Your task to perform on an android device: Is it going to rain this weekend? Image 0: 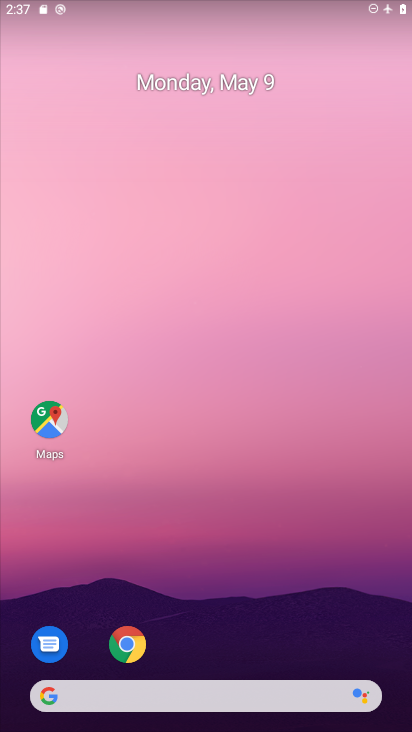
Step 0: drag from (218, 638) to (164, 166)
Your task to perform on an android device: Is it going to rain this weekend? Image 1: 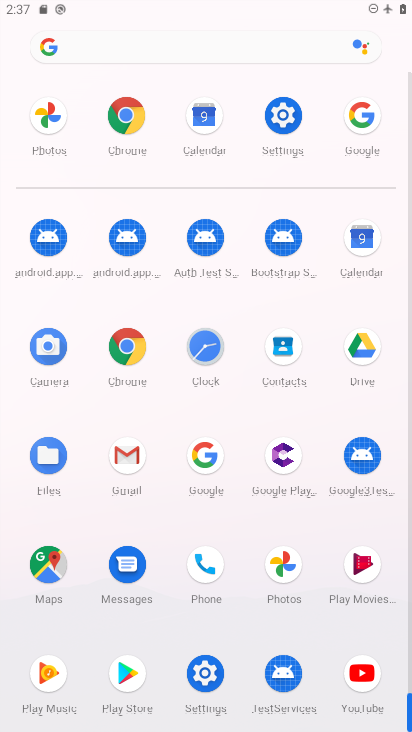
Step 1: click (351, 139)
Your task to perform on an android device: Is it going to rain this weekend? Image 2: 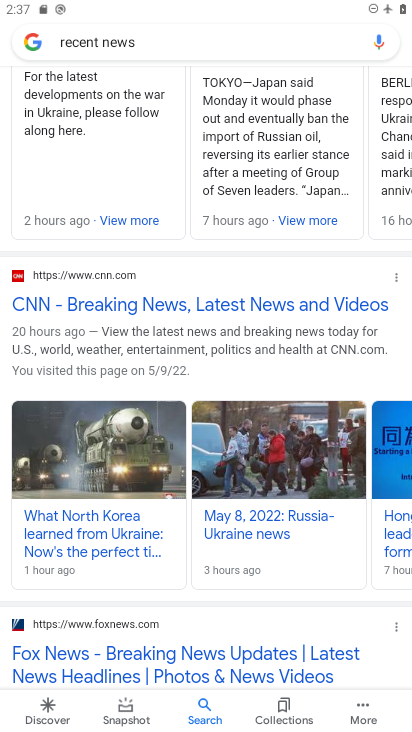
Step 2: drag from (264, 182) to (165, 730)
Your task to perform on an android device: Is it going to rain this weekend? Image 3: 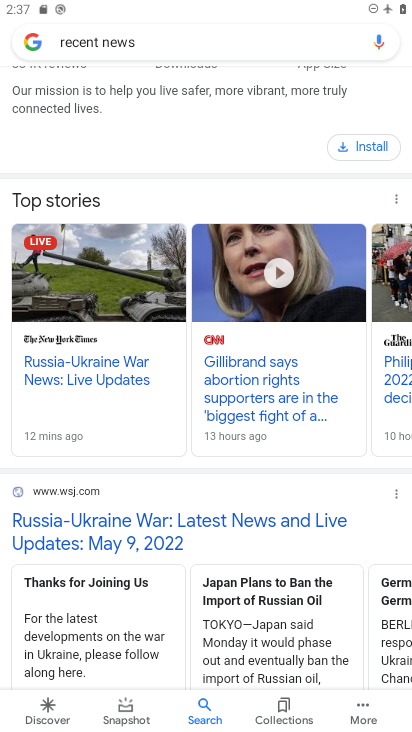
Step 3: drag from (132, 247) to (130, 729)
Your task to perform on an android device: Is it going to rain this weekend? Image 4: 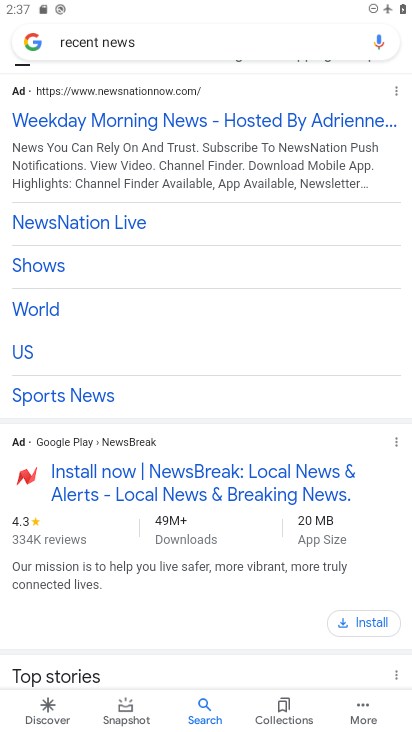
Step 4: drag from (156, 420) to (113, 731)
Your task to perform on an android device: Is it going to rain this weekend? Image 5: 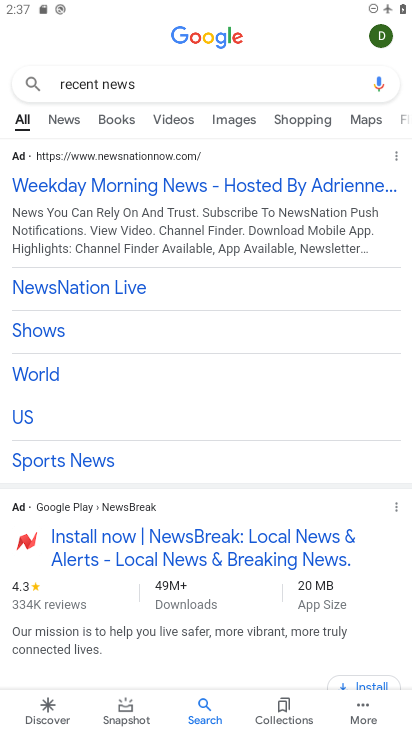
Step 5: drag from (192, 284) to (195, 680)
Your task to perform on an android device: Is it going to rain this weekend? Image 6: 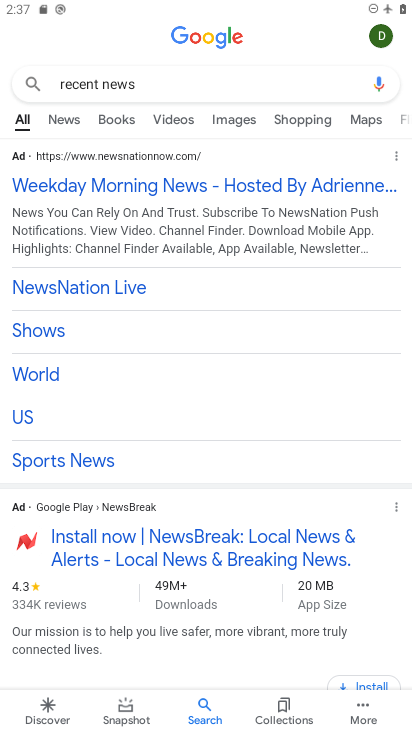
Step 6: drag from (189, 242) to (181, 644)
Your task to perform on an android device: Is it going to rain this weekend? Image 7: 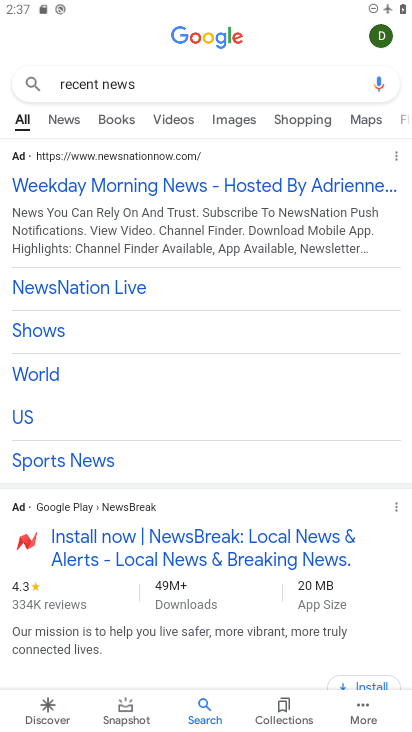
Step 7: drag from (186, 173) to (187, 642)
Your task to perform on an android device: Is it going to rain this weekend? Image 8: 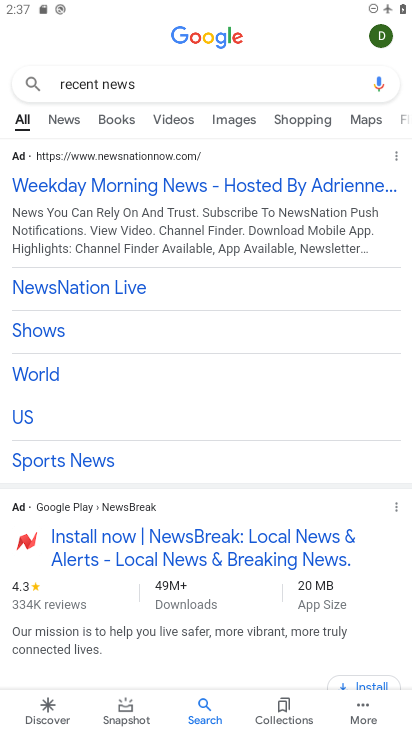
Step 8: press back button
Your task to perform on an android device: Is it going to rain this weekend? Image 9: 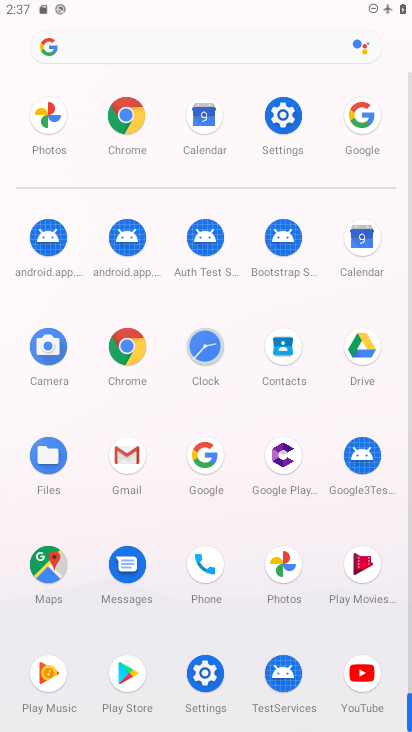
Step 9: click (211, 486)
Your task to perform on an android device: Is it going to rain this weekend? Image 10: 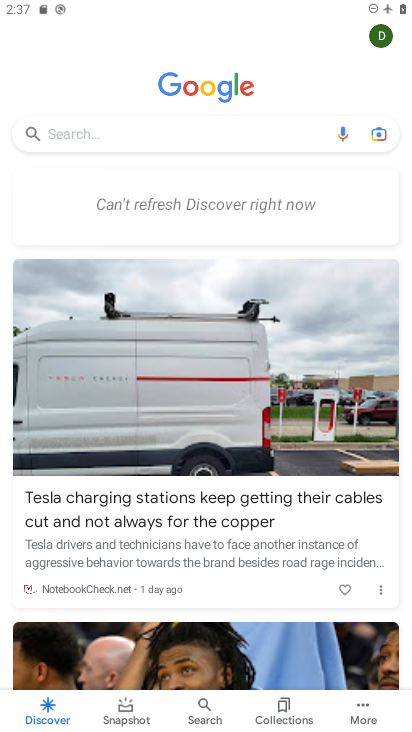
Step 10: click (192, 144)
Your task to perform on an android device: Is it going to rain this weekend? Image 11: 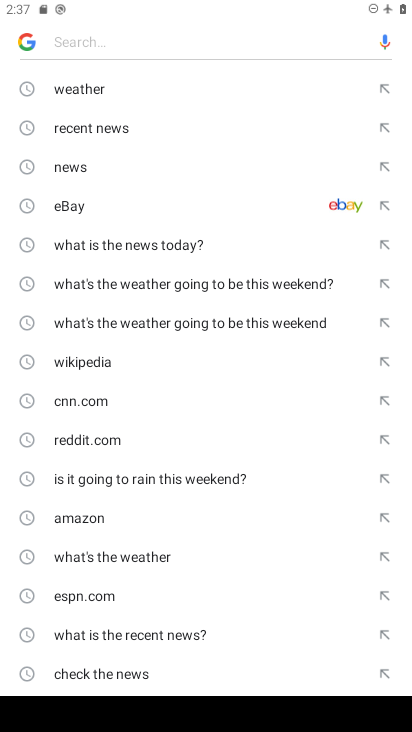
Step 11: click (84, 94)
Your task to perform on an android device: Is it going to rain this weekend? Image 12: 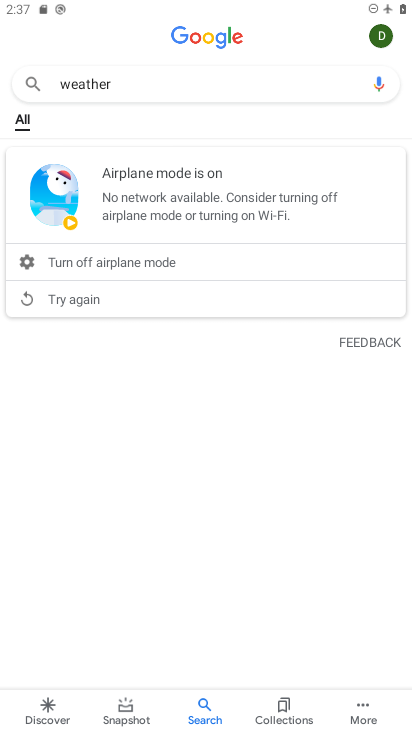
Step 12: press back button
Your task to perform on an android device: Is it going to rain this weekend? Image 13: 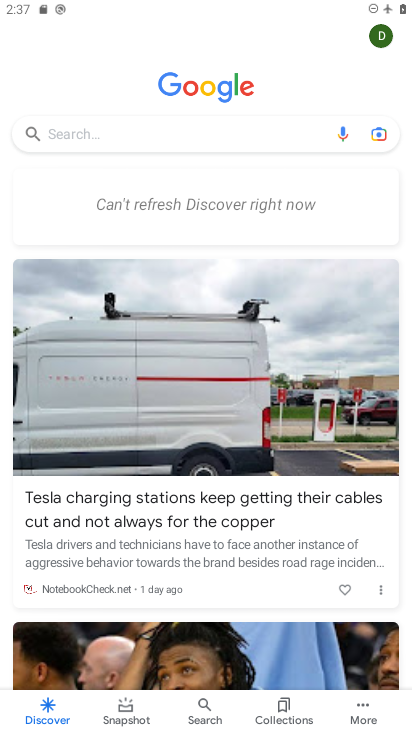
Step 13: press back button
Your task to perform on an android device: Is it going to rain this weekend? Image 14: 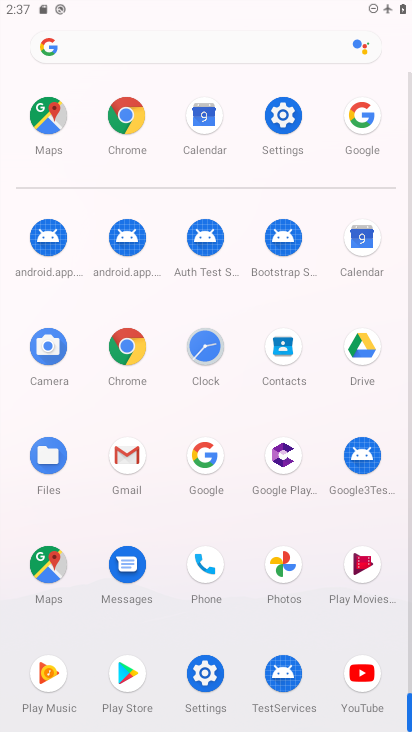
Step 14: click (268, 141)
Your task to perform on an android device: Is it going to rain this weekend? Image 15: 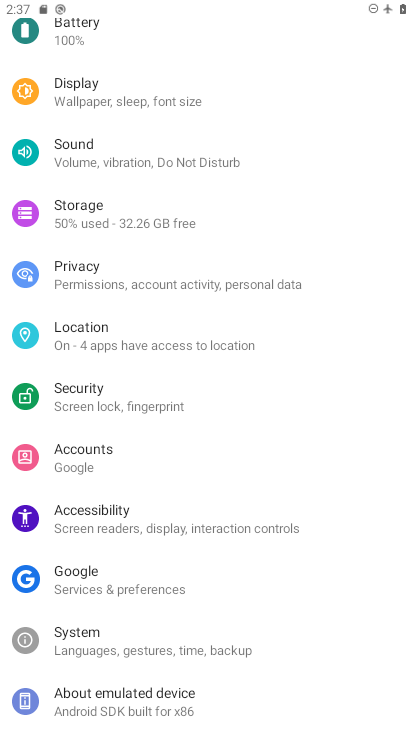
Step 15: drag from (278, 133) to (290, 441)
Your task to perform on an android device: Is it going to rain this weekend? Image 16: 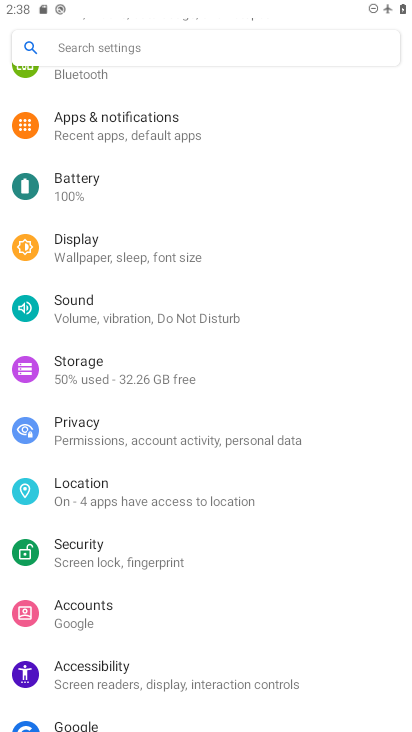
Step 16: drag from (259, 166) to (236, 675)
Your task to perform on an android device: Is it going to rain this weekend? Image 17: 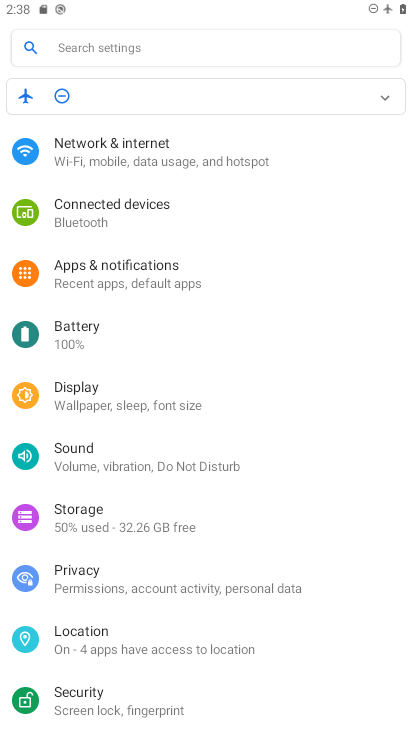
Step 17: click (385, 97)
Your task to perform on an android device: Is it going to rain this weekend? Image 18: 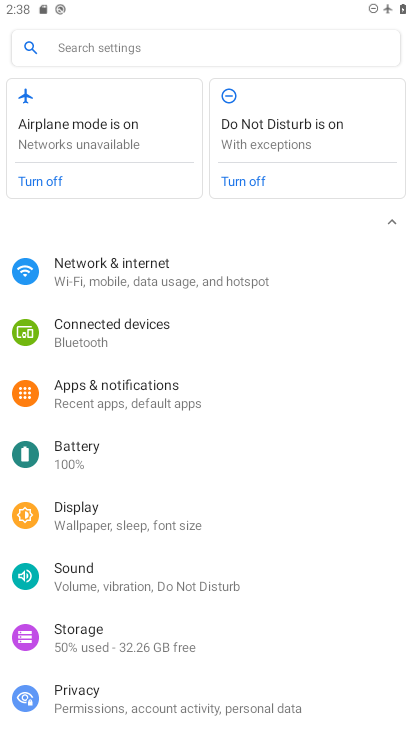
Step 18: click (96, 183)
Your task to perform on an android device: Is it going to rain this weekend? Image 19: 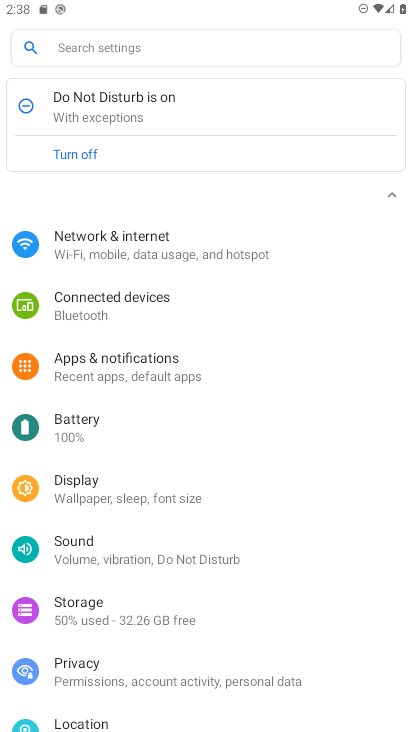
Step 19: press back button
Your task to perform on an android device: Is it going to rain this weekend? Image 20: 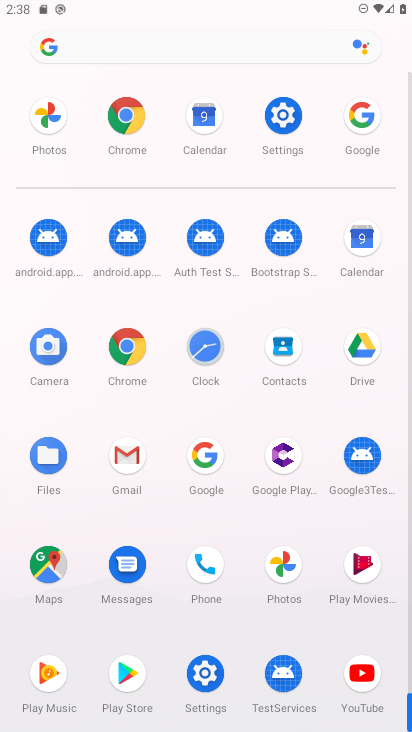
Step 20: click (196, 482)
Your task to perform on an android device: Is it going to rain this weekend? Image 21: 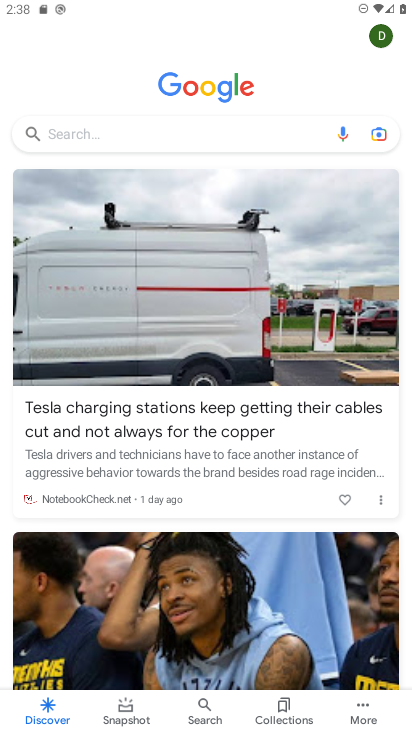
Step 21: click (80, 121)
Your task to perform on an android device: Is it going to rain this weekend? Image 22: 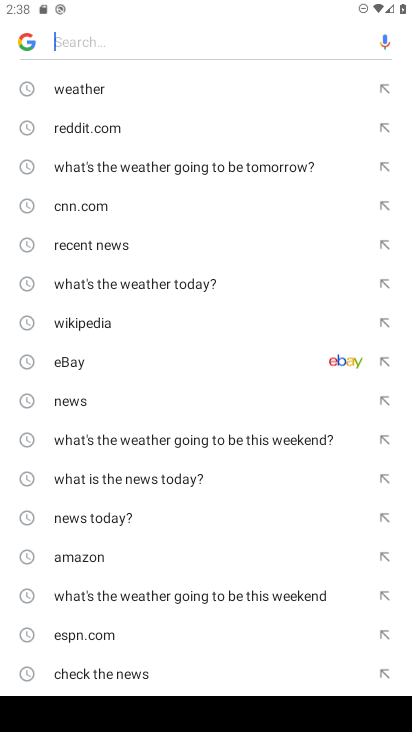
Step 22: click (77, 96)
Your task to perform on an android device: Is it going to rain this weekend? Image 23: 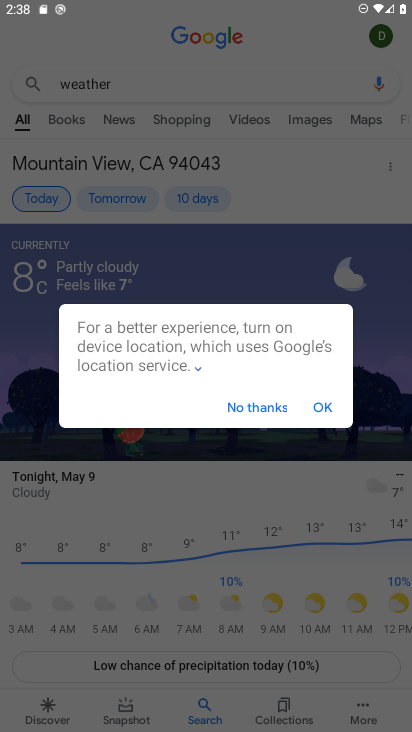
Step 23: click (231, 414)
Your task to perform on an android device: Is it going to rain this weekend? Image 24: 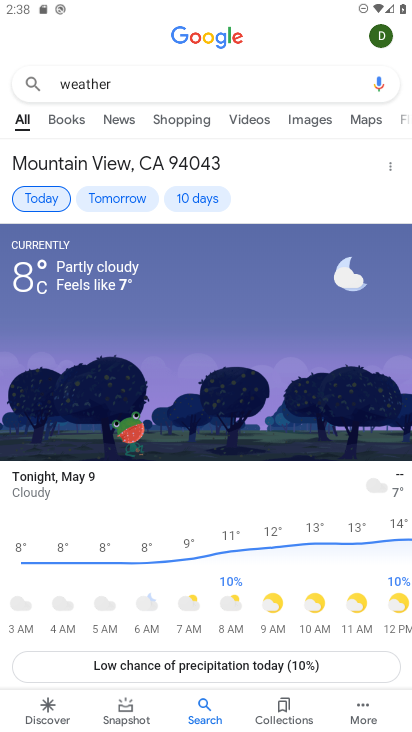
Step 24: drag from (255, 586) to (247, 276)
Your task to perform on an android device: Is it going to rain this weekend? Image 25: 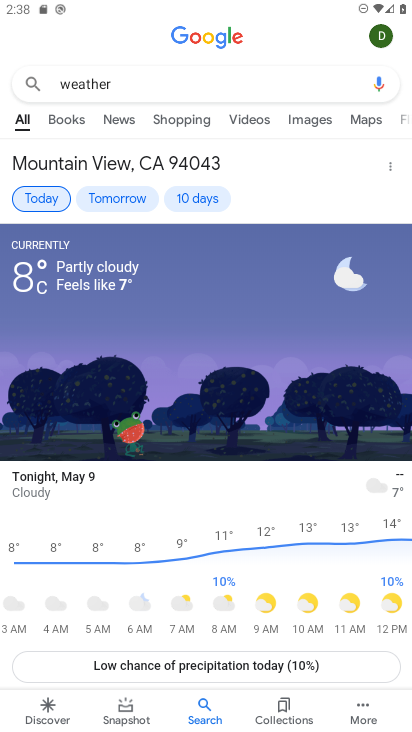
Step 25: drag from (296, 619) to (319, 329)
Your task to perform on an android device: Is it going to rain this weekend? Image 26: 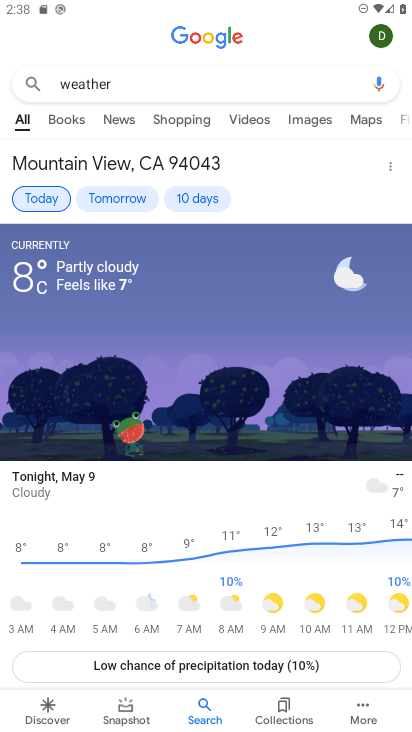
Step 26: click (198, 201)
Your task to perform on an android device: Is it going to rain this weekend? Image 27: 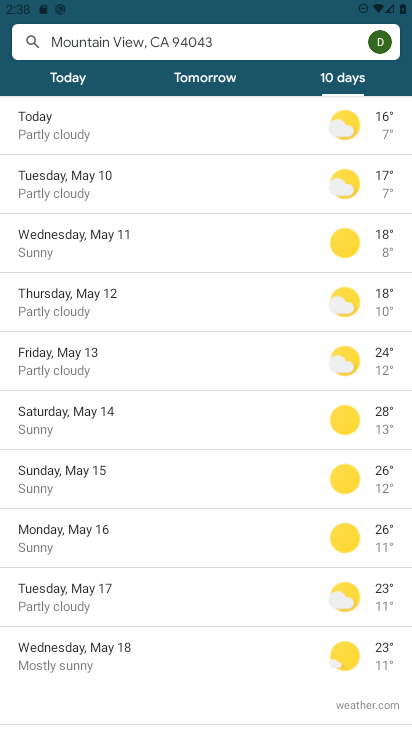
Step 27: task complete